Your task to perform on an android device: Open the calendar and show me this week's events? Image 0: 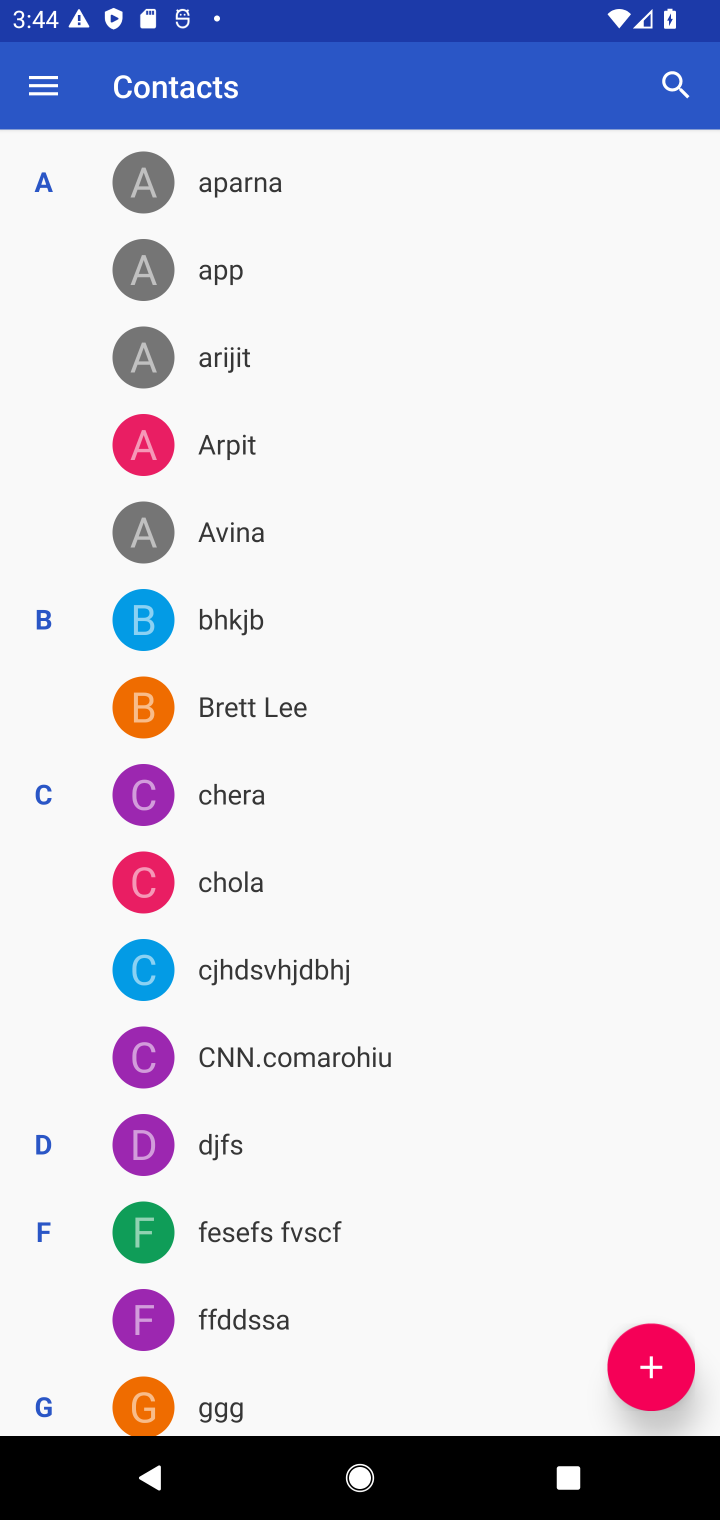
Step 0: press home button
Your task to perform on an android device: Open the calendar and show me this week's events? Image 1: 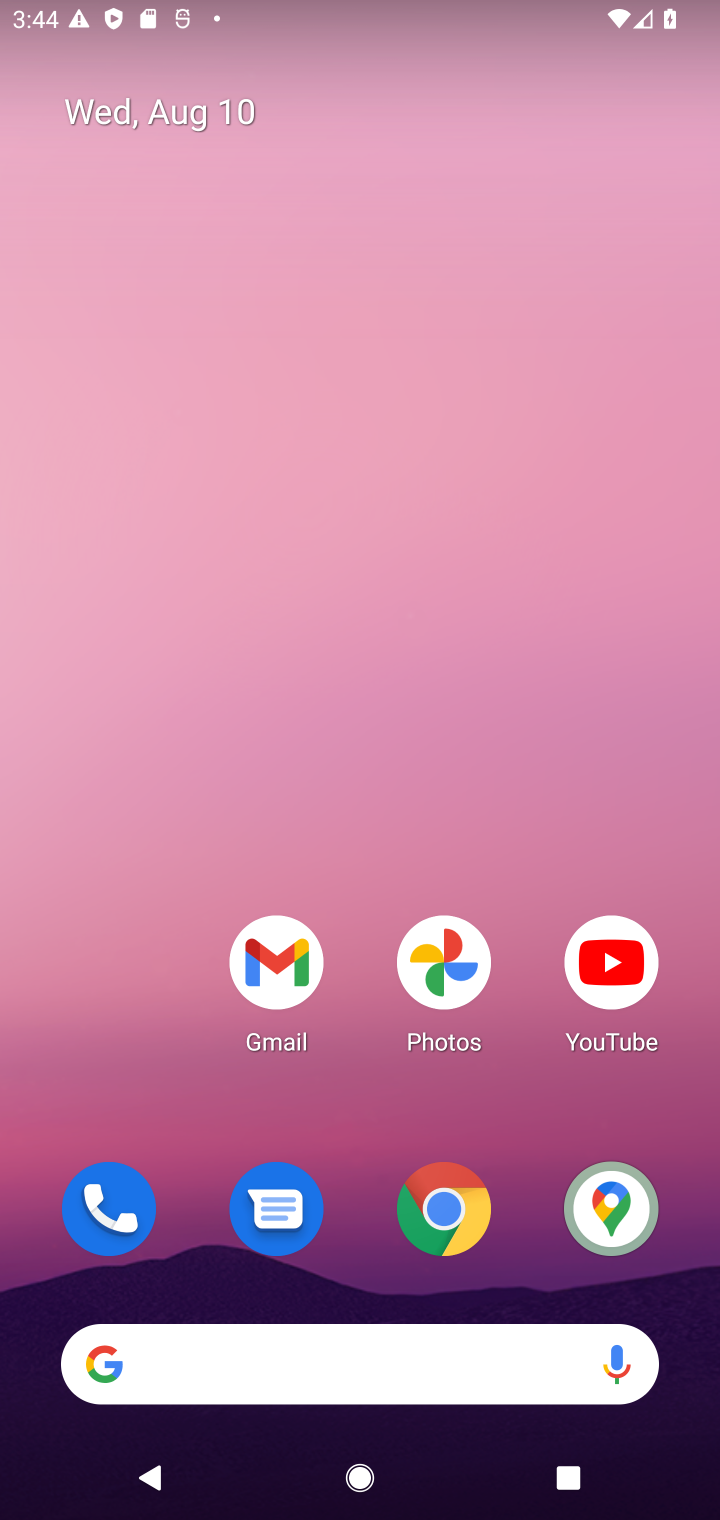
Step 1: click (199, 117)
Your task to perform on an android device: Open the calendar and show me this week's events? Image 2: 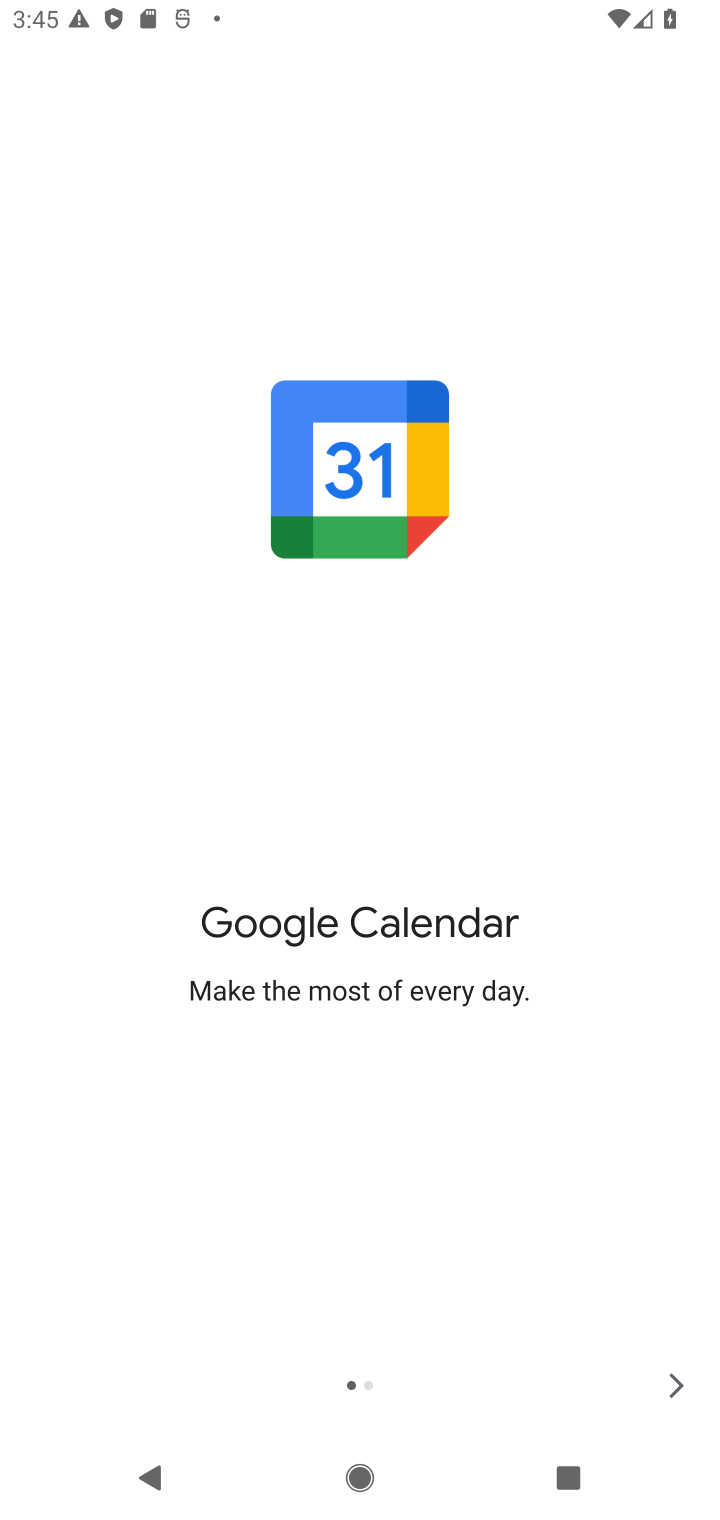
Step 2: click (685, 1391)
Your task to perform on an android device: Open the calendar and show me this week's events? Image 3: 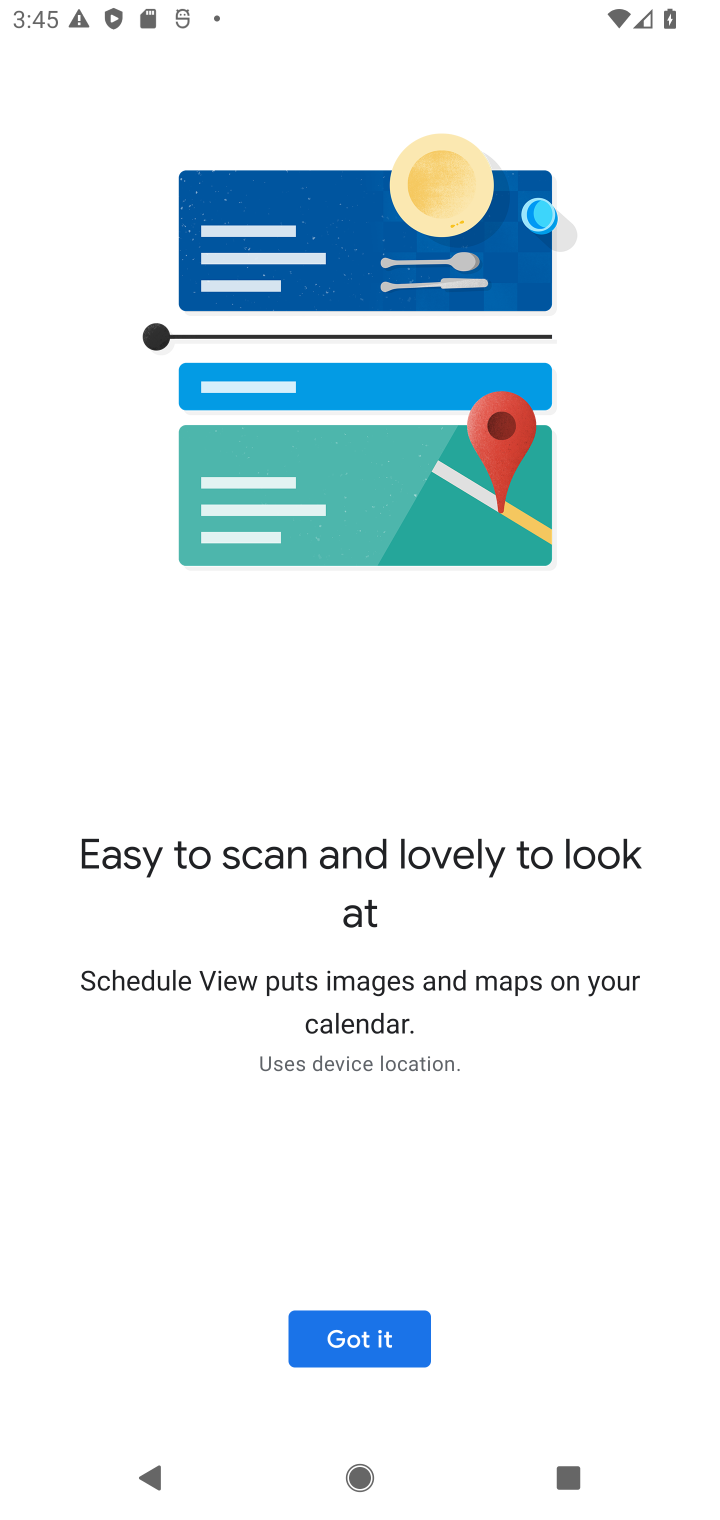
Step 3: click (394, 1337)
Your task to perform on an android device: Open the calendar and show me this week's events? Image 4: 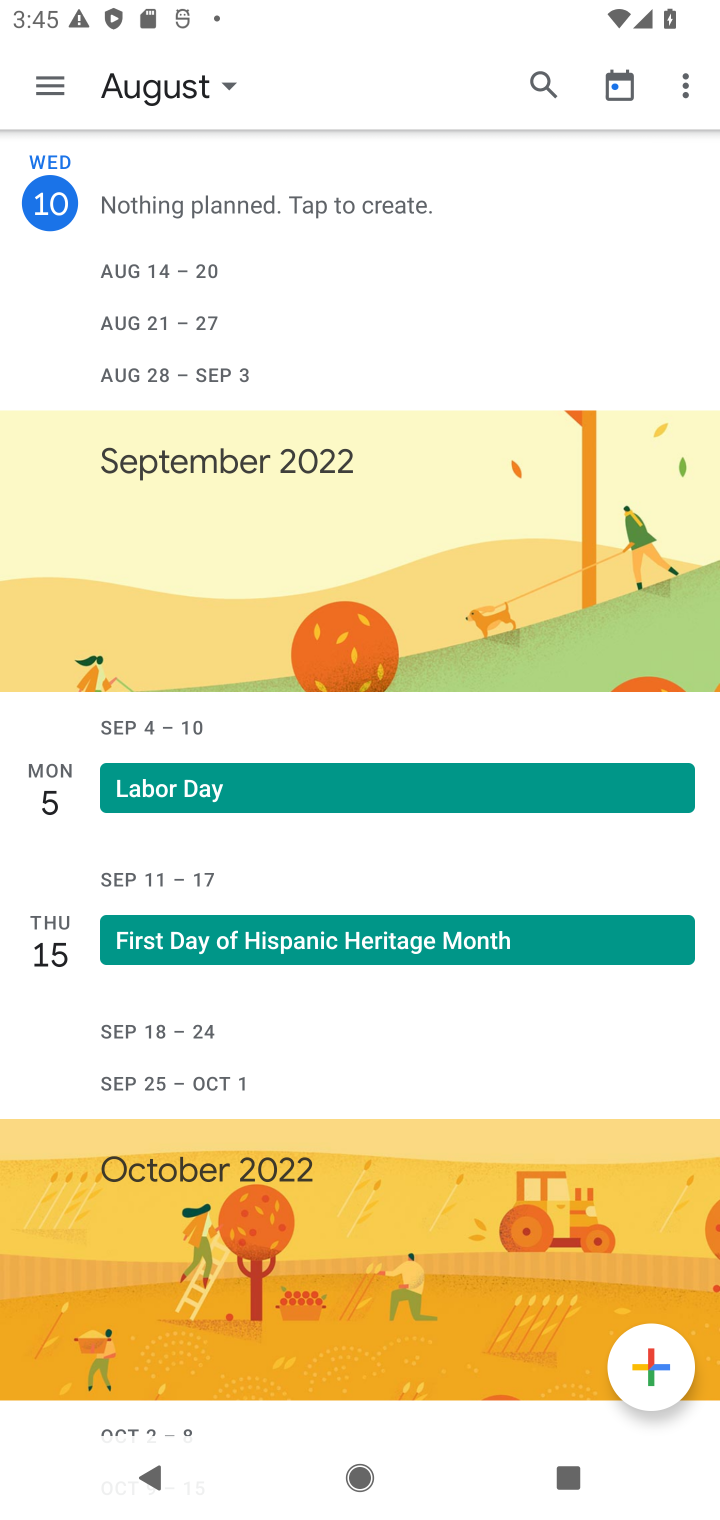
Step 4: click (28, 91)
Your task to perform on an android device: Open the calendar and show me this week's events? Image 5: 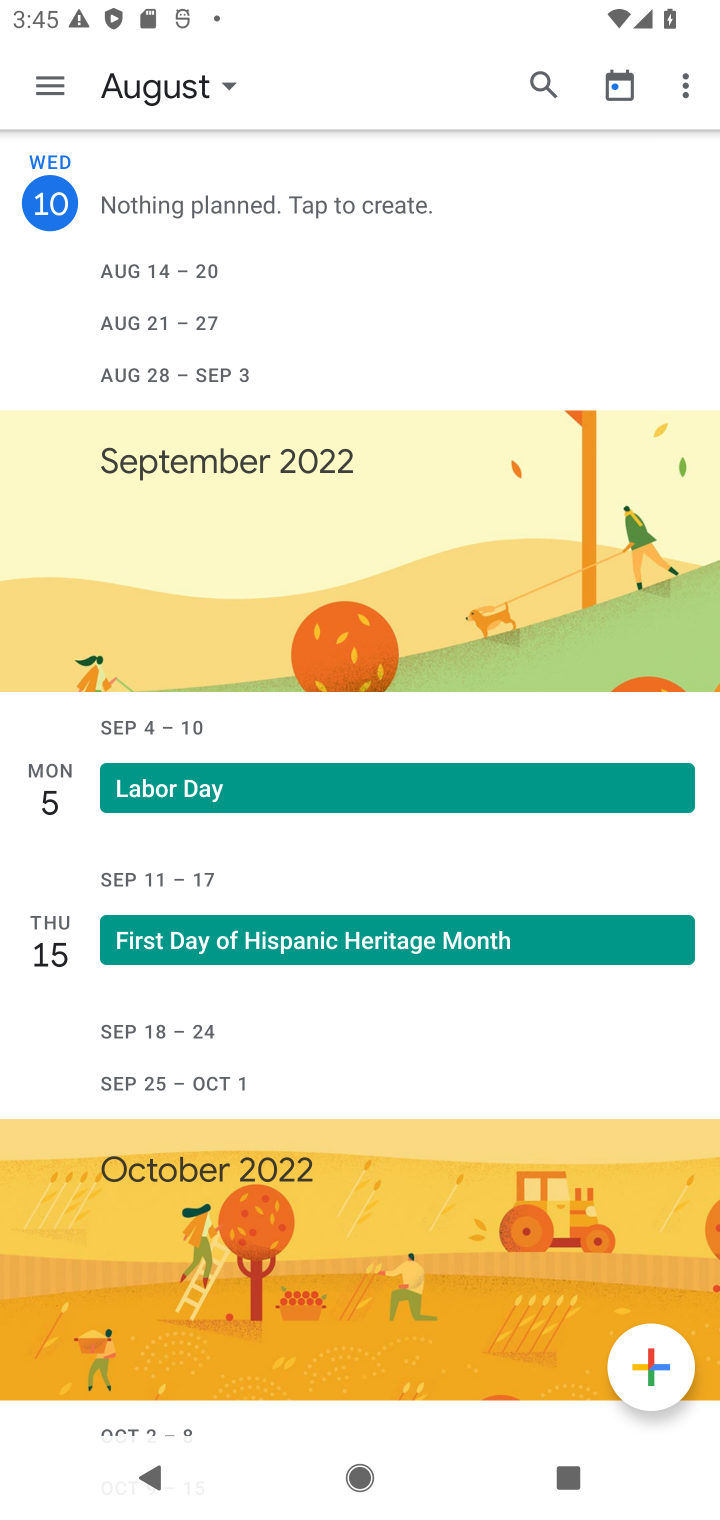
Step 5: click (53, 87)
Your task to perform on an android device: Open the calendar and show me this week's events? Image 6: 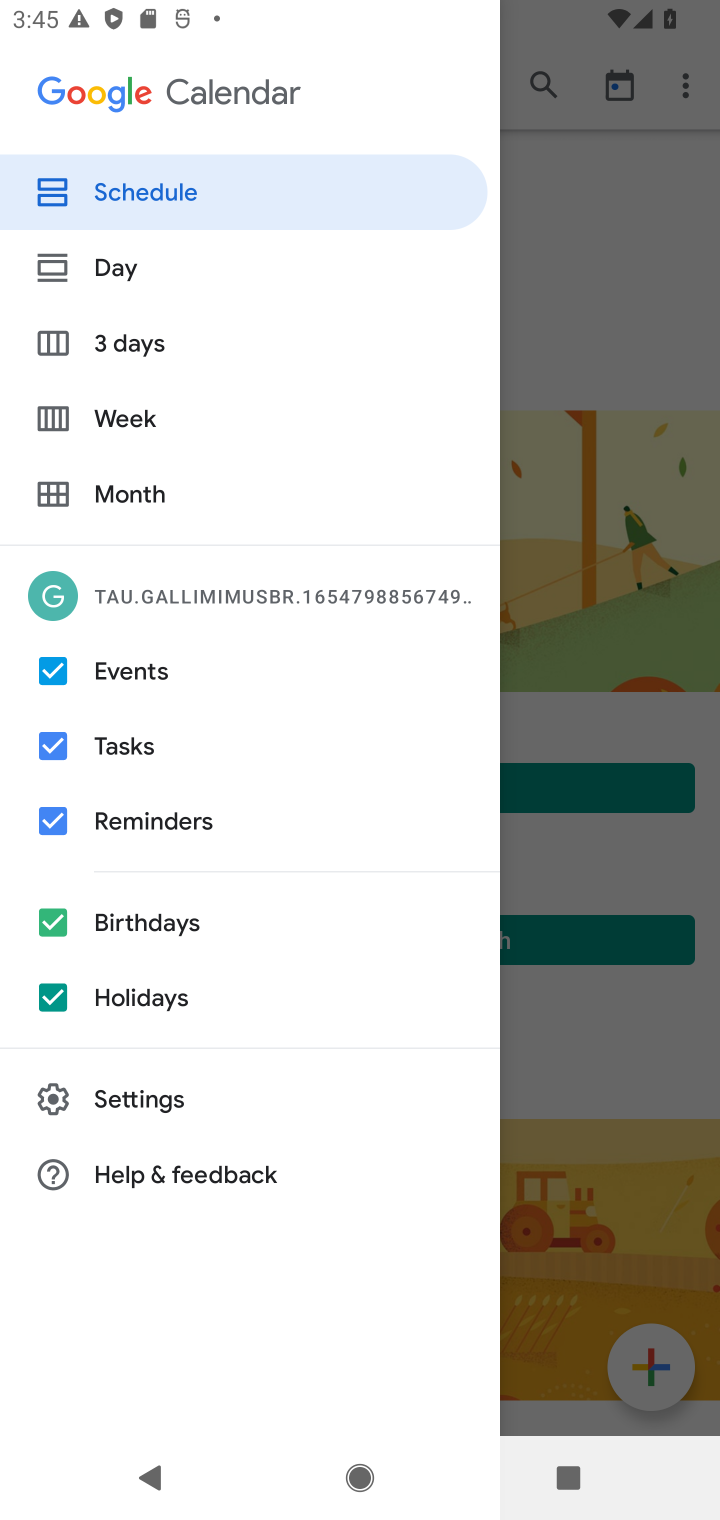
Step 6: click (45, 826)
Your task to perform on an android device: Open the calendar and show me this week's events? Image 7: 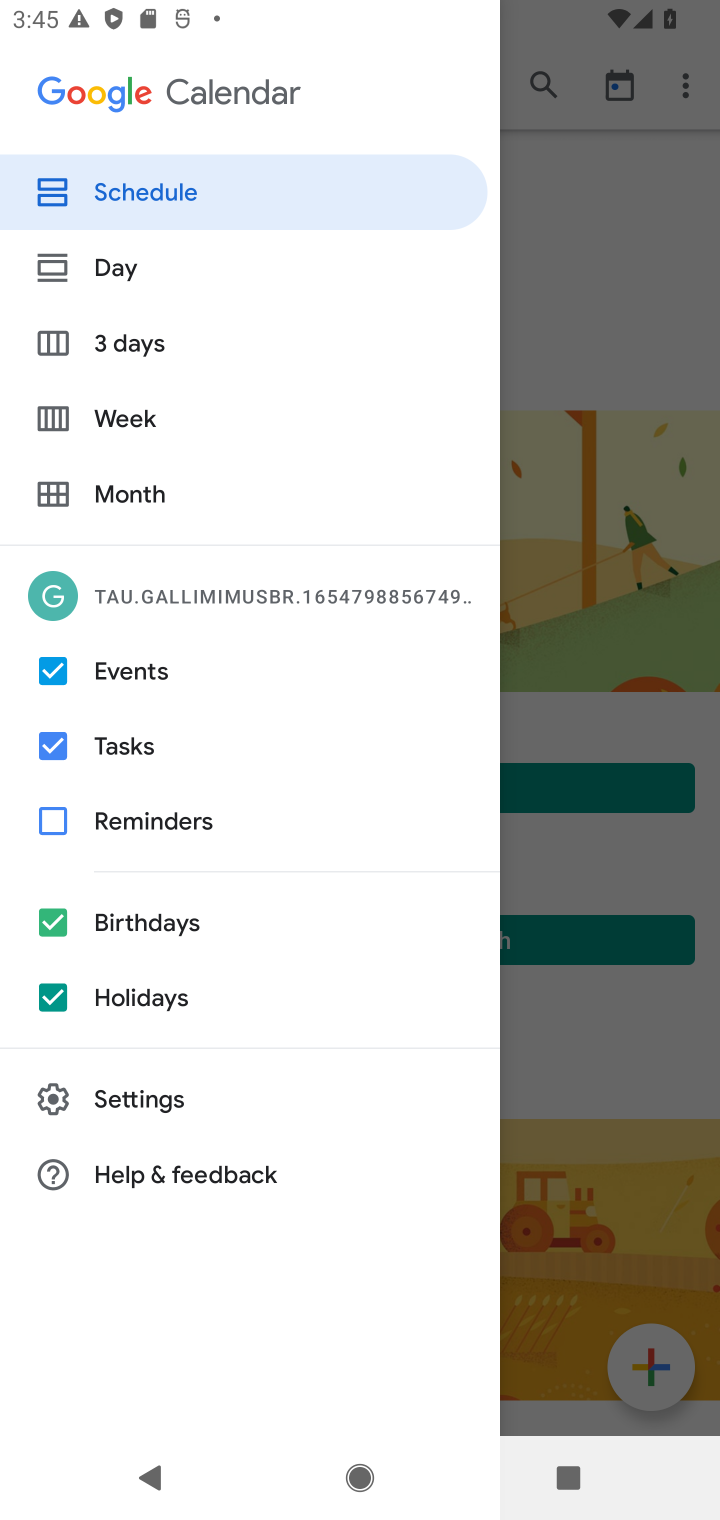
Step 7: click (55, 923)
Your task to perform on an android device: Open the calendar and show me this week's events? Image 8: 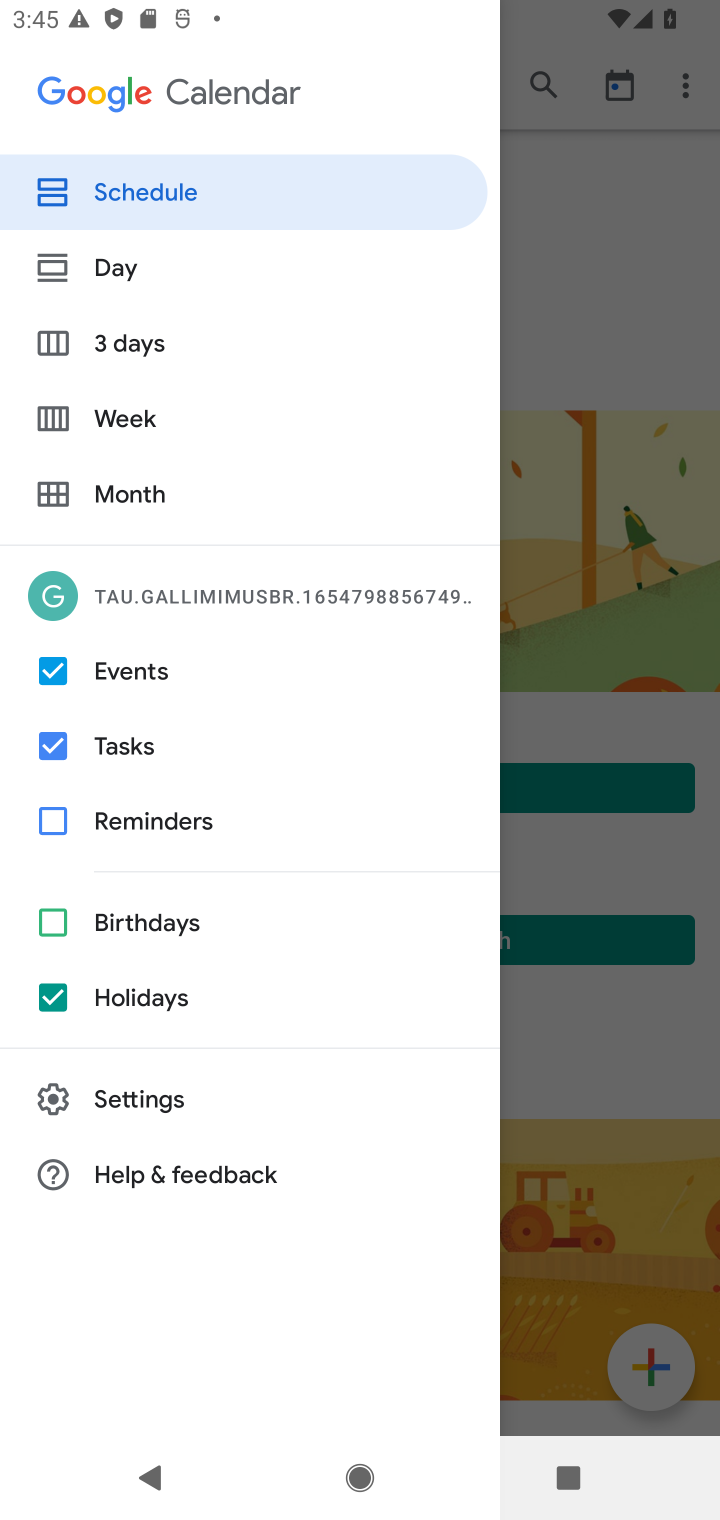
Step 8: click (44, 999)
Your task to perform on an android device: Open the calendar and show me this week's events? Image 9: 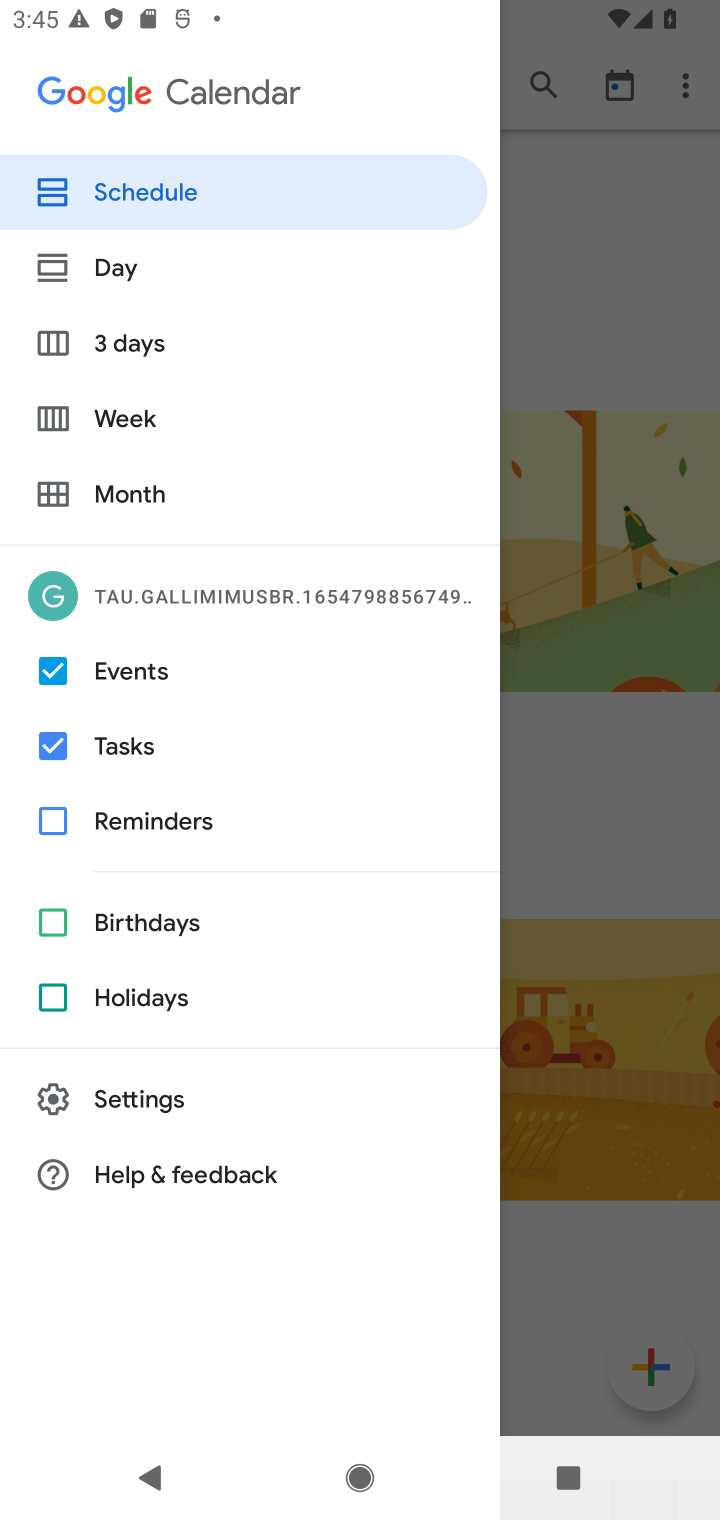
Step 9: click (45, 749)
Your task to perform on an android device: Open the calendar and show me this week's events? Image 10: 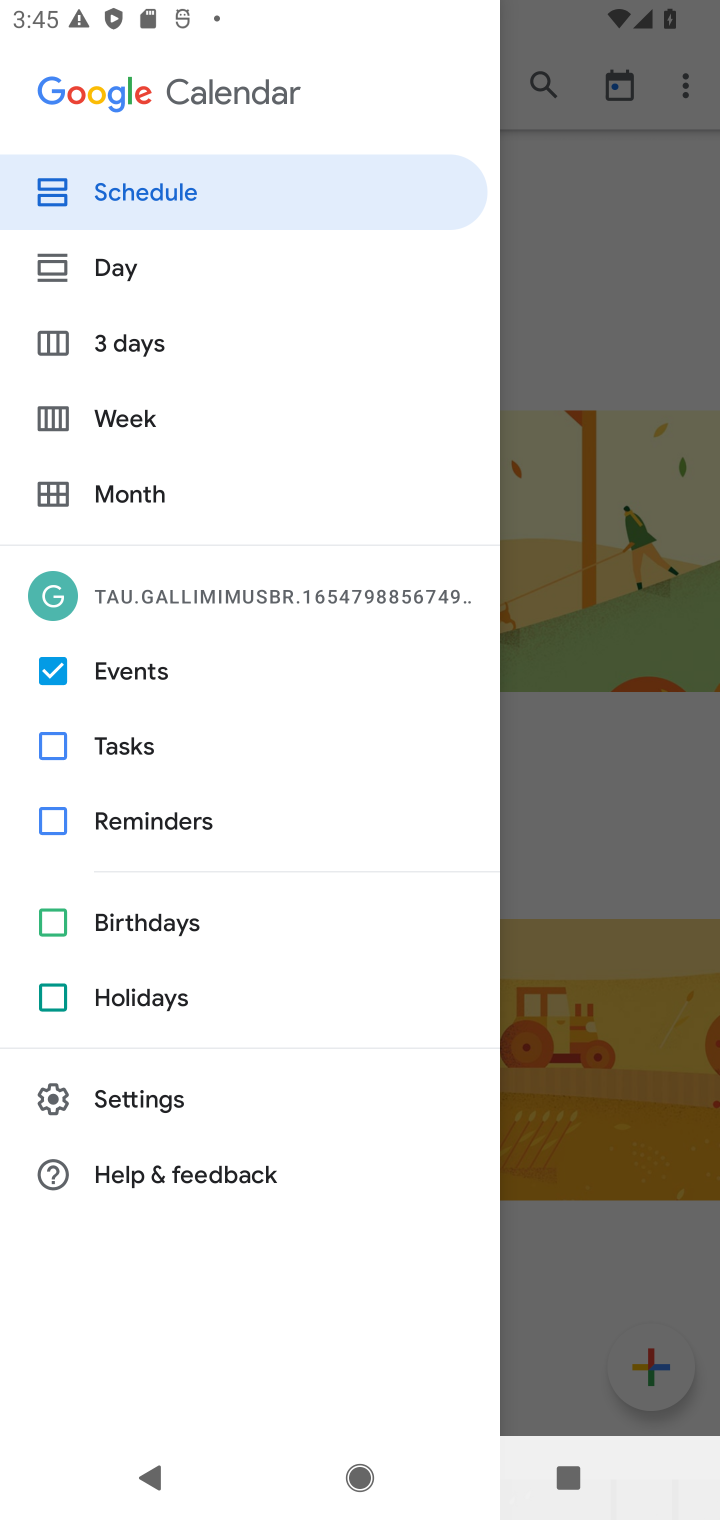
Step 10: click (59, 427)
Your task to perform on an android device: Open the calendar and show me this week's events? Image 11: 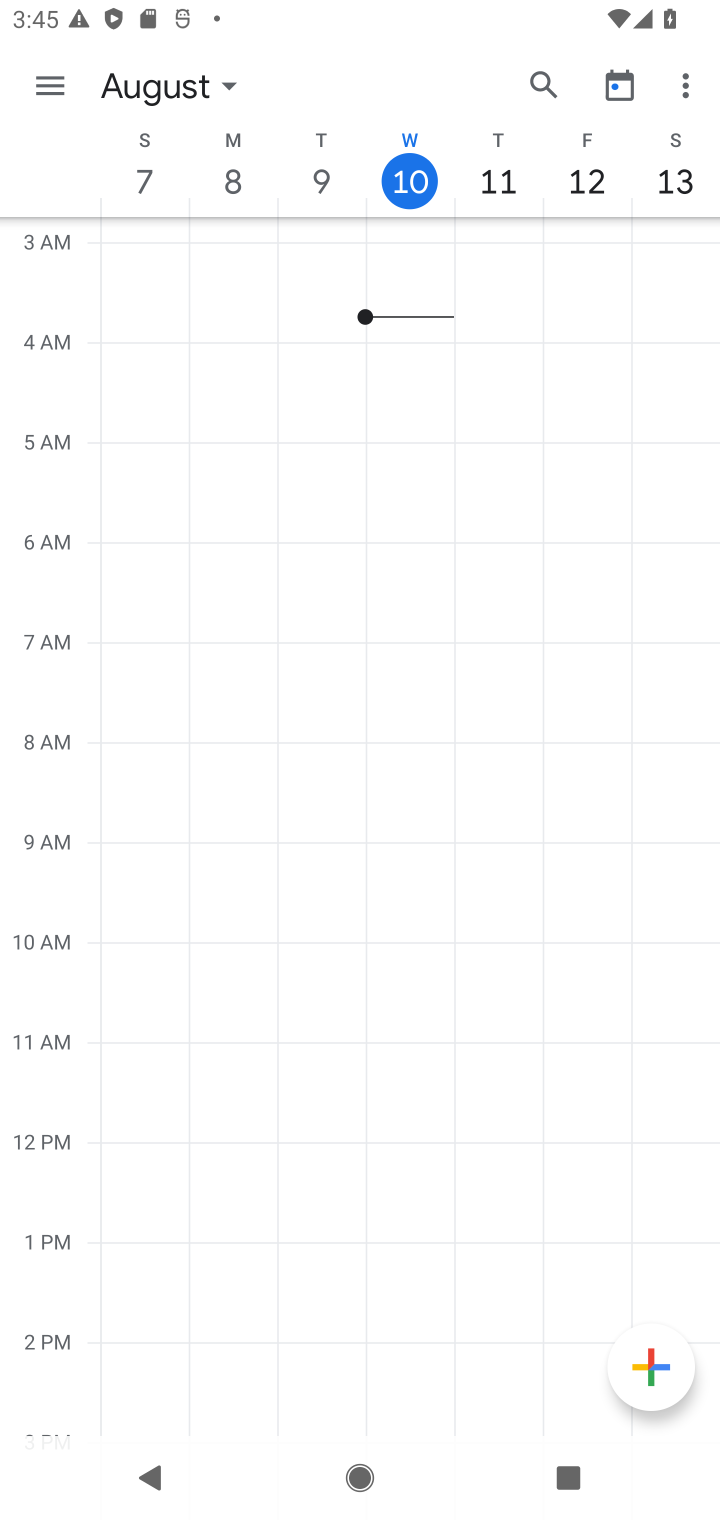
Step 11: task complete